Your task to perform on an android device: Open my contact list Image 0: 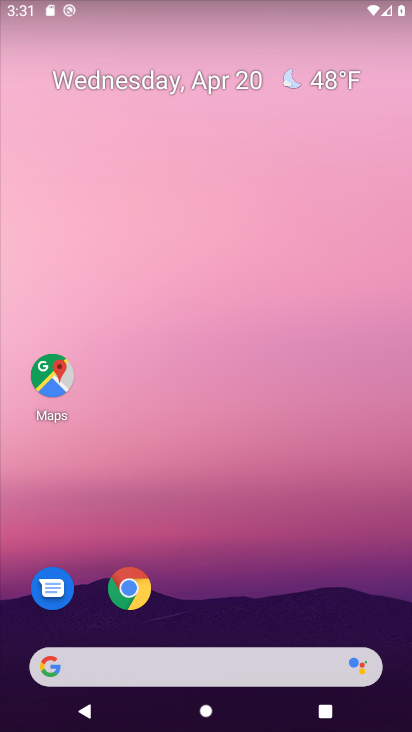
Step 0: drag from (325, 604) to (272, 140)
Your task to perform on an android device: Open my contact list Image 1: 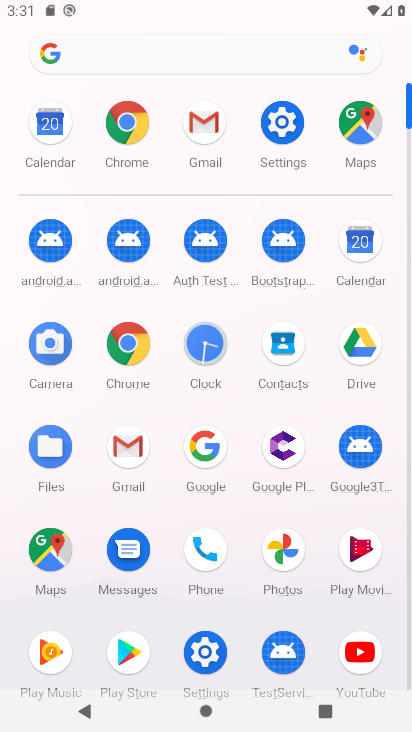
Step 1: click (284, 339)
Your task to perform on an android device: Open my contact list Image 2: 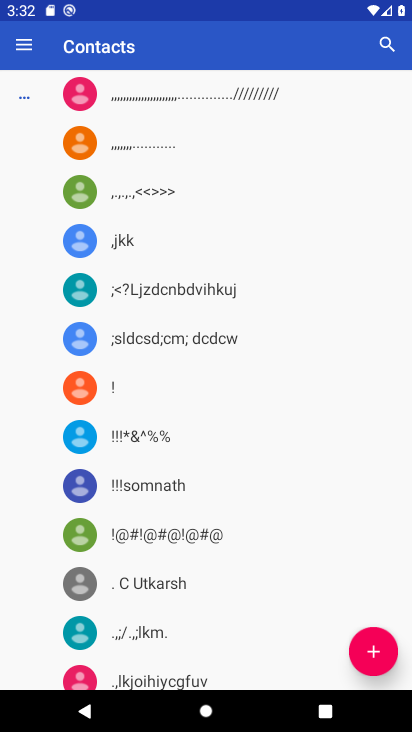
Step 2: task complete